Your task to perform on an android device: allow cookies in the chrome app Image 0: 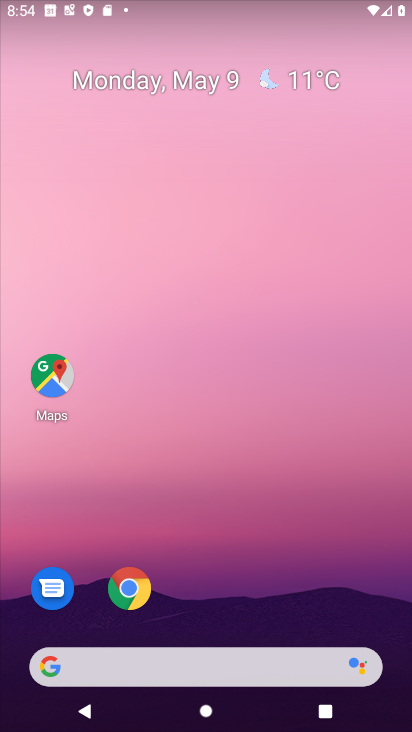
Step 0: press home button
Your task to perform on an android device: allow cookies in the chrome app Image 1: 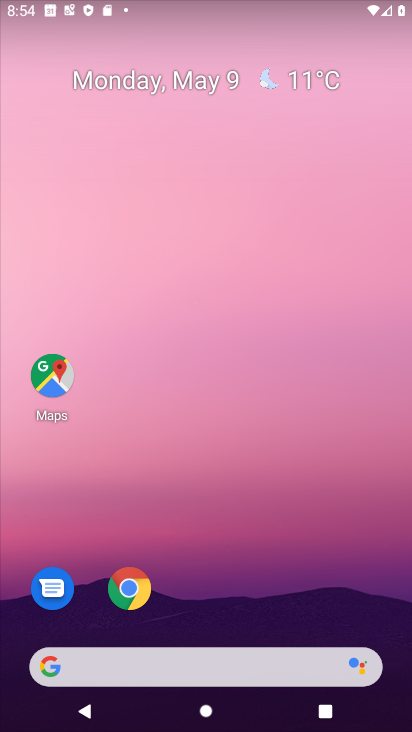
Step 1: drag from (126, 667) to (272, 130)
Your task to perform on an android device: allow cookies in the chrome app Image 2: 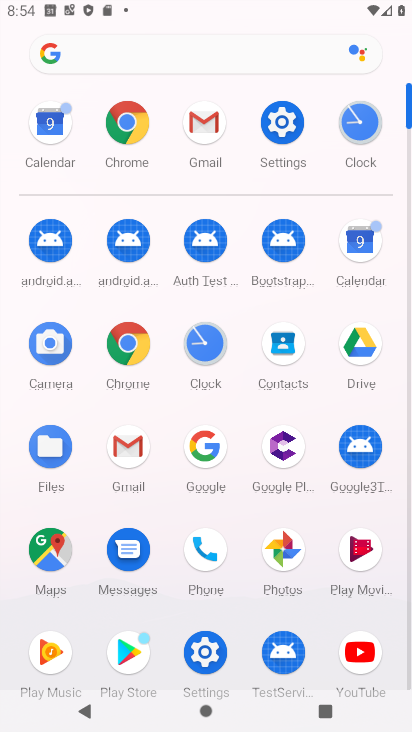
Step 2: click (128, 123)
Your task to perform on an android device: allow cookies in the chrome app Image 3: 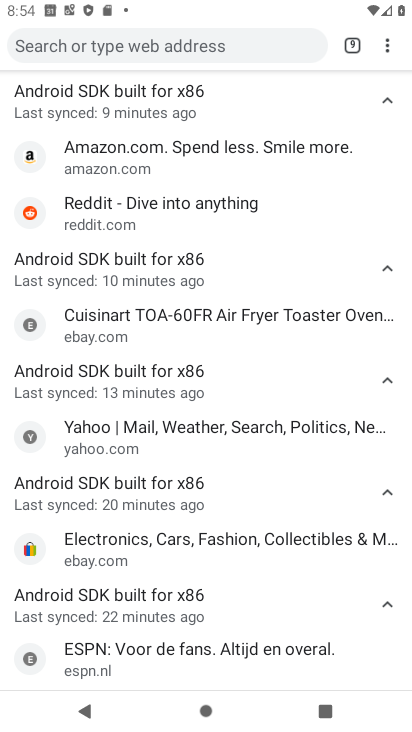
Step 3: drag from (384, 47) to (245, 380)
Your task to perform on an android device: allow cookies in the chrome app Image 4: 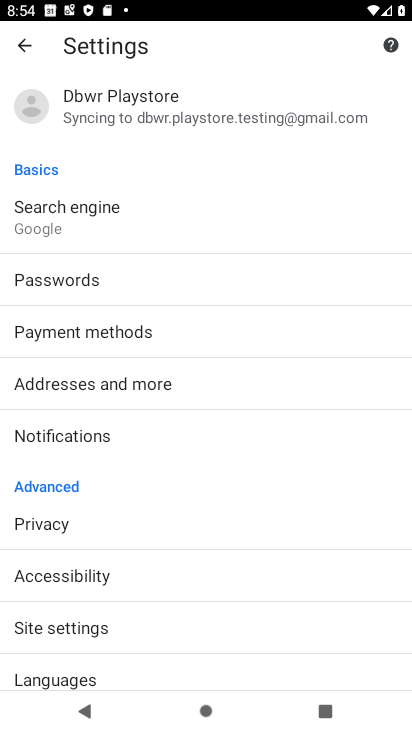
Step 4: click (92, 624)
Your task to perform on an android device: allow cookies in the chrome app Image 5: 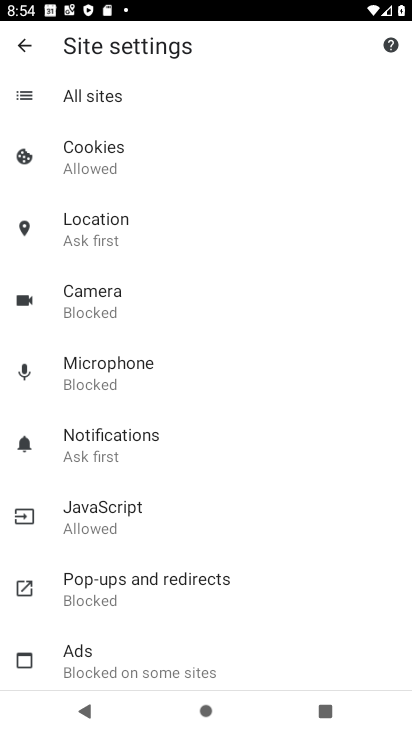
Step 5: click (119, 166)
Your task to perform on an android device: allow cookies in the chrome app Image 6: 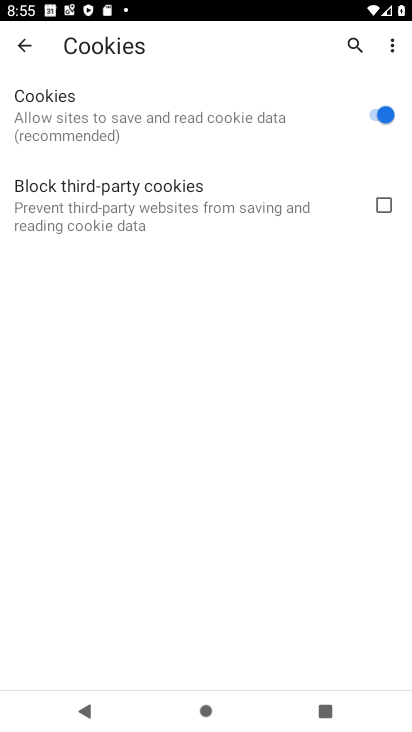
Step 6: task complete